Your task to perform on an android device: delete the emails in spam in the gmail app Image 0: 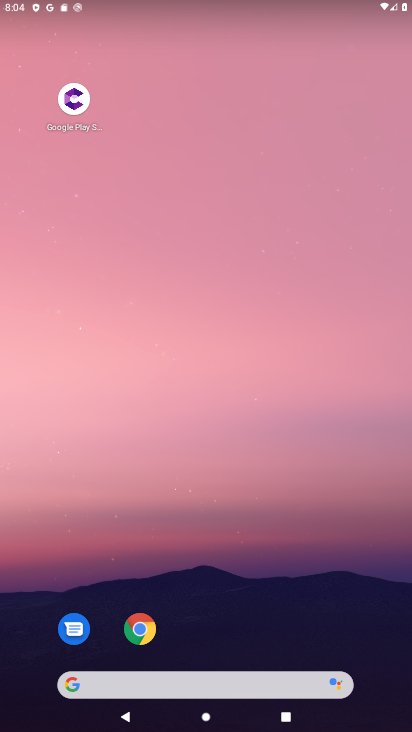
Step 0: drag from (216, 580) to (216, 14)
Your task to perform on an android device: delete the emails in spam in the gmail app Image 1: 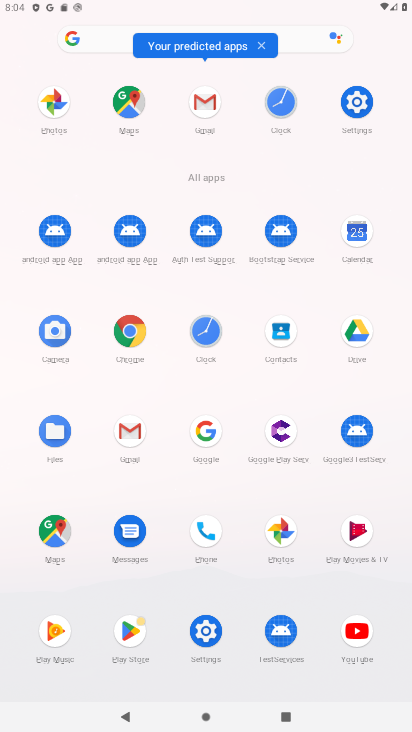
Step 1: click (130, 433)
Your task to perform on an android device: delete the emails in spam in the gmail app Image 2: 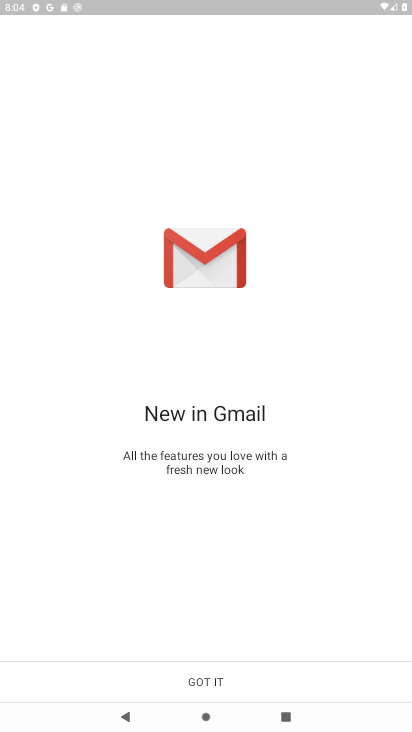
Step 2: click (216, 680)
Your task to perform on an android device: delete the emails in spam in the gmail app Image 3: 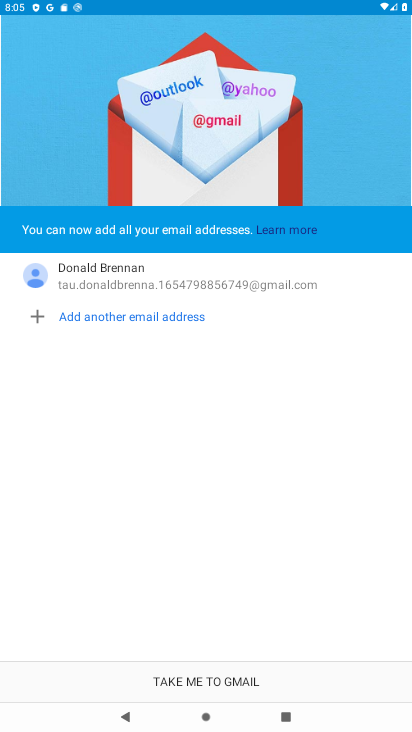
Step 3: click (223, 681)
Your task to perform on an android device: delete the emails in spam in the gmail app Image 4: 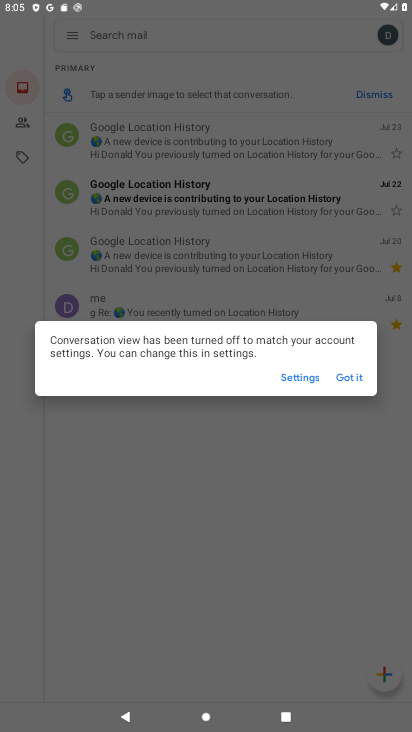
Step 4: click (343, 375)
Your task to perform on an android device: delete the emails in spam in the gmail app Image 5: 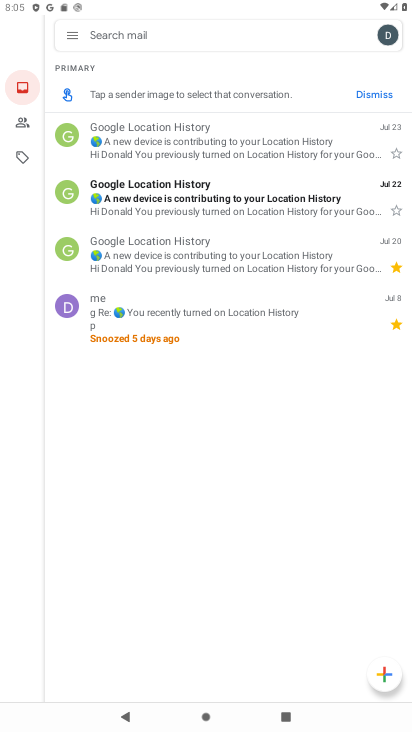
Step 5: click (64, 29)
Your task to perform on an android device: delete the emails in spam in the gmail app Image 6: 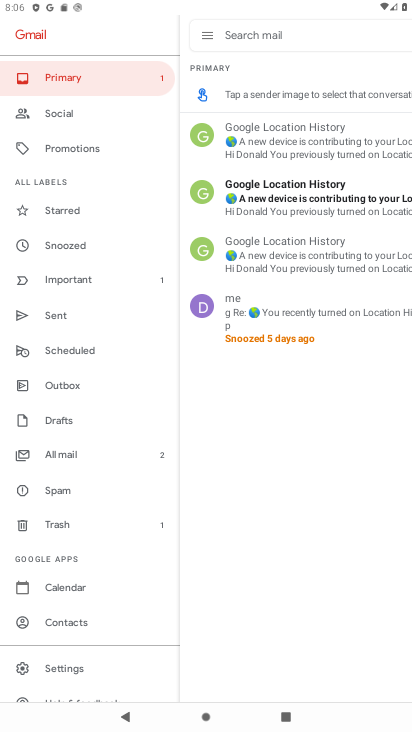
Step 6: click (87, 524)
Your task to perform on an android device: delete the emails in spam in the gmail app Image 7: 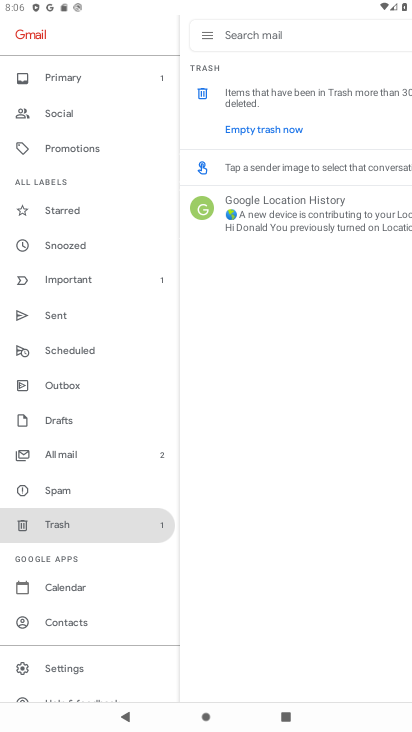
Step 7: click (64, 492)
Your task to perform on an android device: delete the emails in spam in the gmail app Image 8: 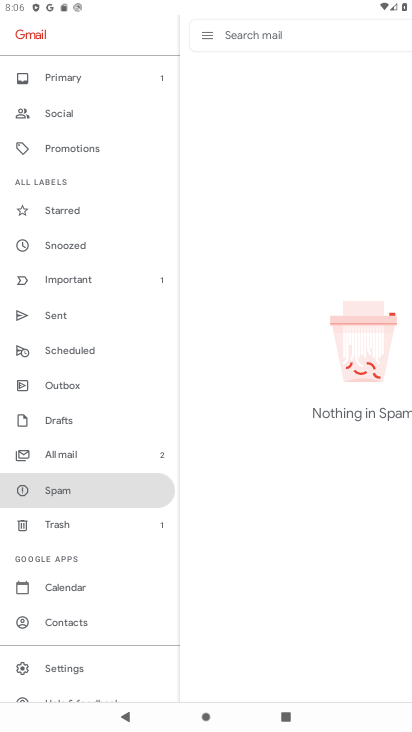
Step 8: task complete